Your task to perform on an android device: turn off picture-in-picture Image 0: 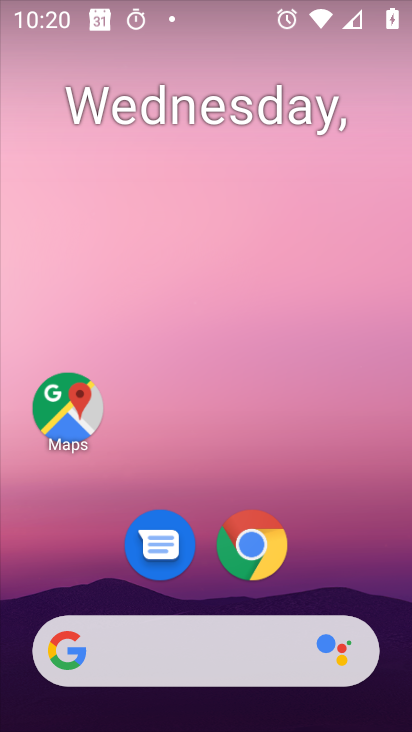
Step 0: press home button
Your task to perform on an android device: turn off picture-in-picture Image 1: 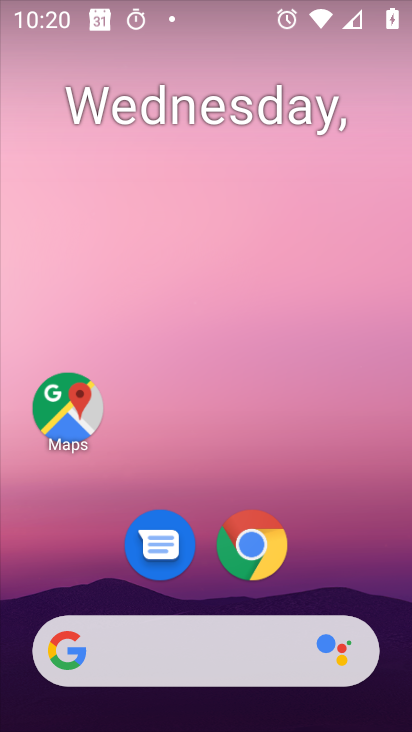
Step 1: drag from (238, 542) to (248, 484)
Your task to perform on an android device: turn off picture-in-picture Image 2: 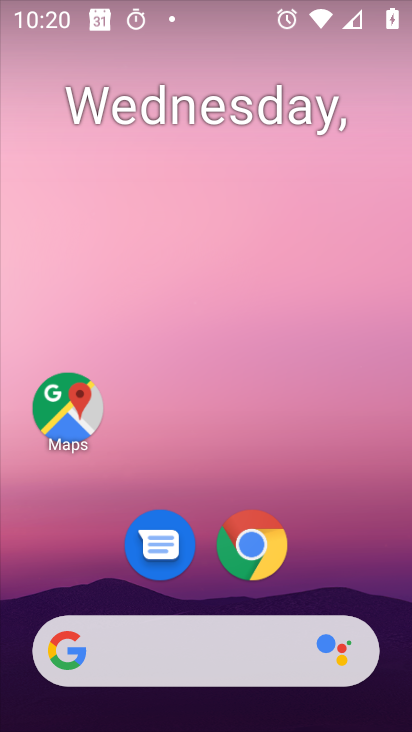
Step 2: click (283, 282)
Your task to perform on an android device: turn off picture-in-picture Image 3: 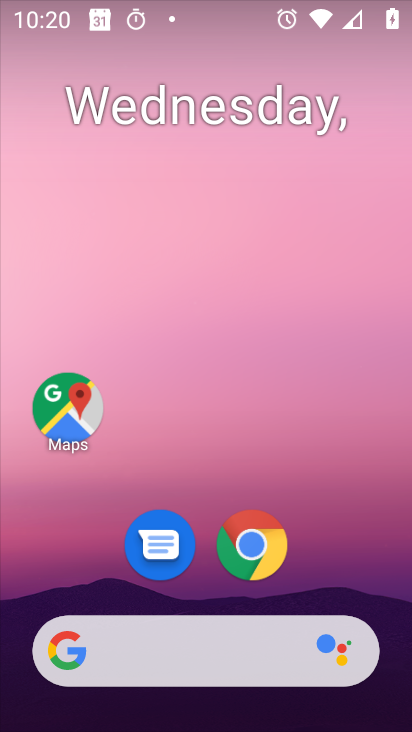
Step 3: drag from (258, 546) to (266, 495)
Your task to perform on an android device: turn off picture-in-picture Image 4: 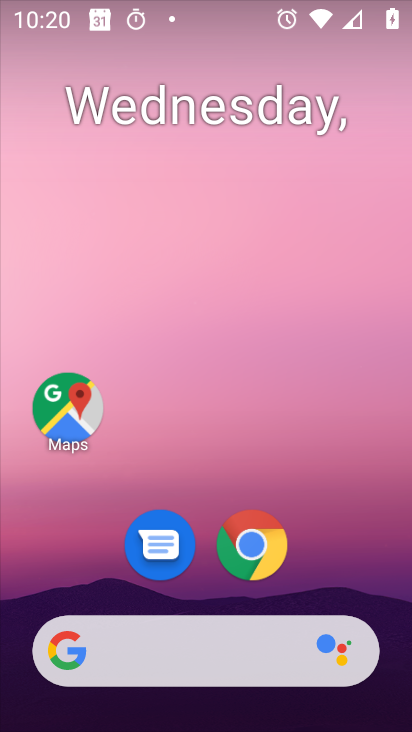
Step 4: click (271, 271)
Your task to perform on an android device: turn off picture-in-picture Image 5: 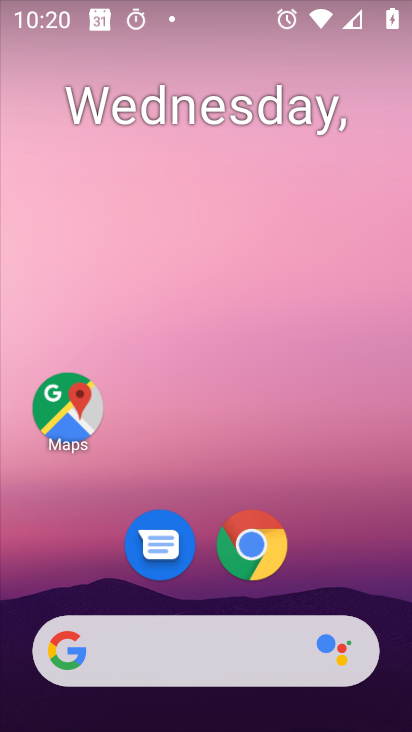
Step 5: drag from (237, 537) to (250, 486)
Your task to perform on an android device: turn off picture-in-picture Image 6: 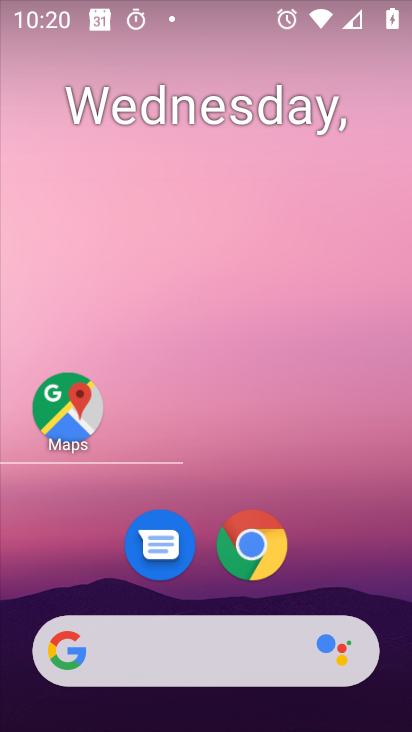
Step 6: click (268, 276)
Your task to perform on an android device: turn off picture-in-picture Image 7: 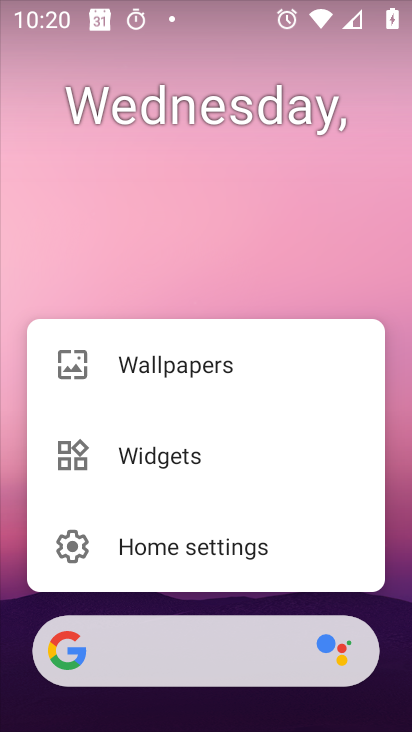
Step 7: click (309, 201)
Your task to perform on an android device: turn off picture-in-picture Image 8: 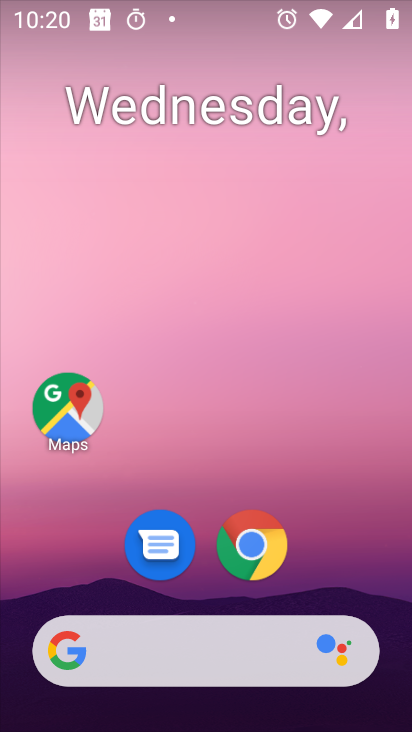
Step 8: click (258, 525)
Your task to perform on an android device: turn off picture-in-picture Image 9: 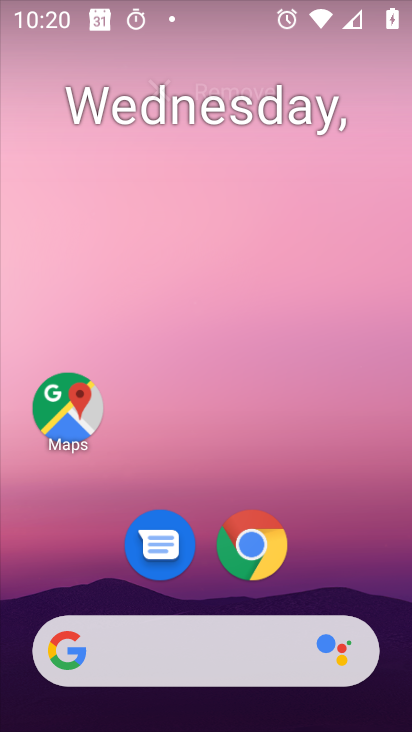
Step 9: click (283, 272)
Your task to perform on an android device: turn off picture-in-picture Image 10: 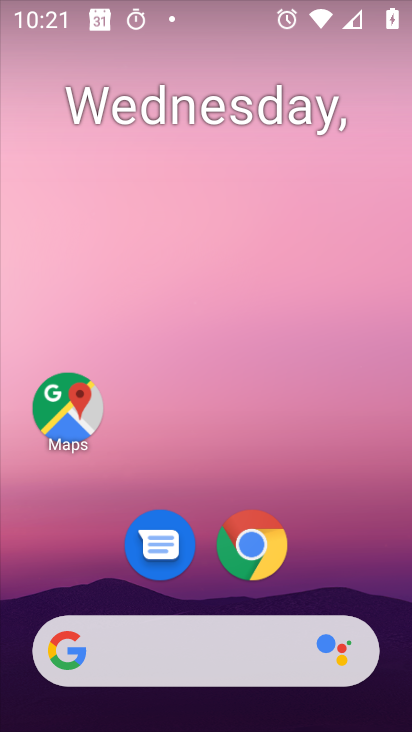
Step 10: click (241, 522)
Your task to perform on an android device: turn off picture-in-picture Image 11: 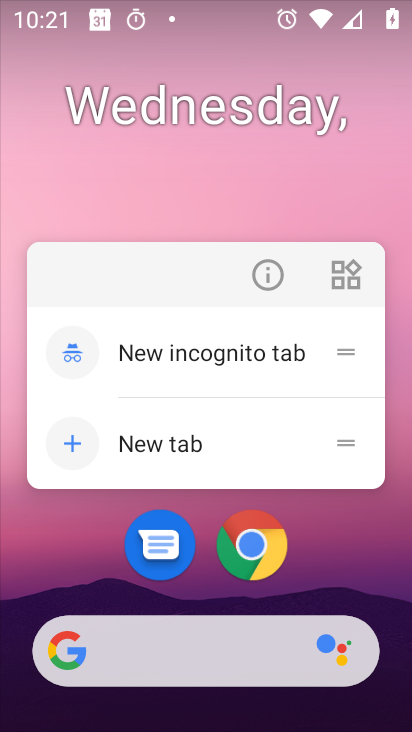
Step 11: click (271, 283)
Your task to perform on an android device: turn off picture-in-picture Image 12: 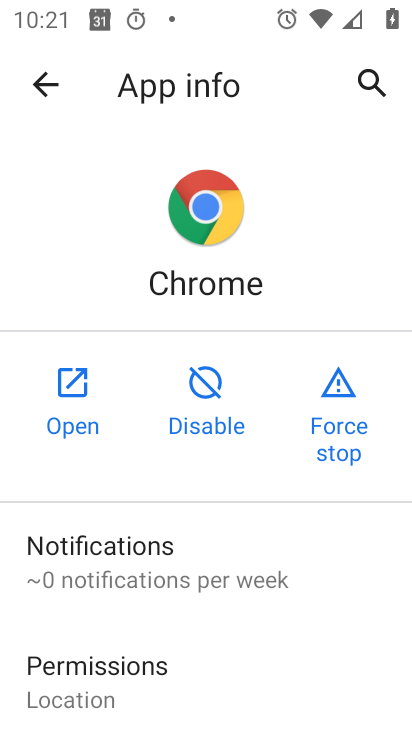
Step 12: drag from (191, 647) to (301, 69)
Your task to perform on an android device: turn off picture-in-picture Image 13: 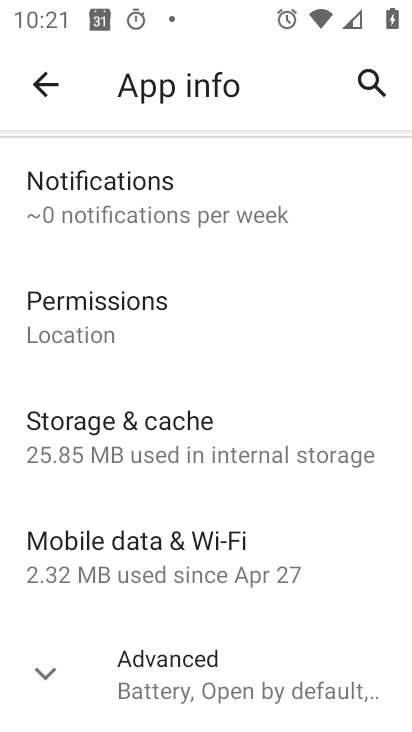
Step 13: click (152, 677)
Your task to perform on an android device: turn off picture-in-picture Image 14: 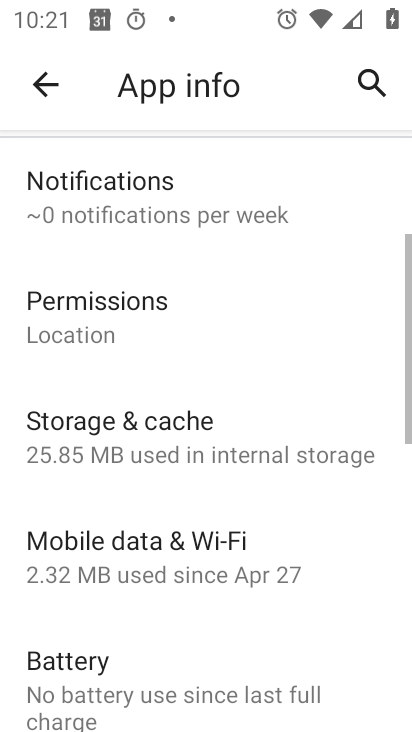
Step 14: drag from (168, 664) to (340, 53)
Your task to perform on an android device: turn off picture-in-picture Image 15: 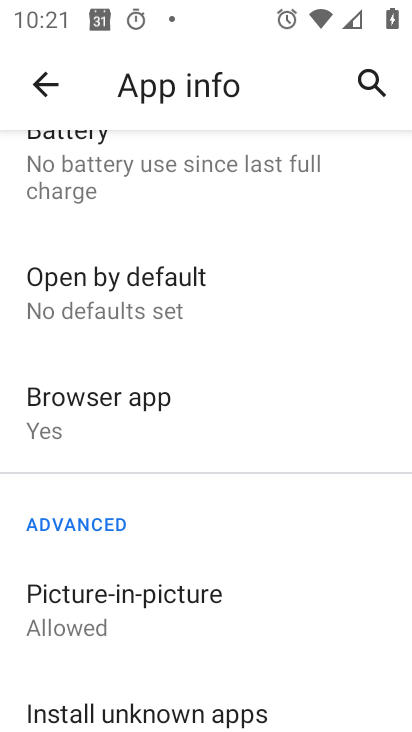
Step 15: click (110, 610)
Your task to perform on an android device: turn off picture-in-picture Image 16: 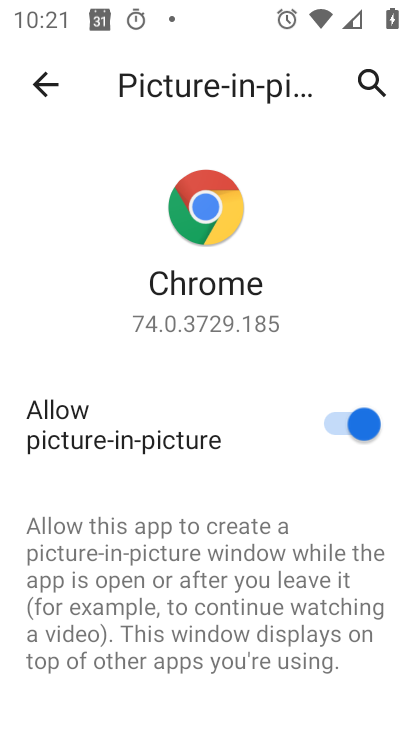
Step 16: click (338, 415)
Your task to perform on an android device: turn off picture-in-picture Image 17: 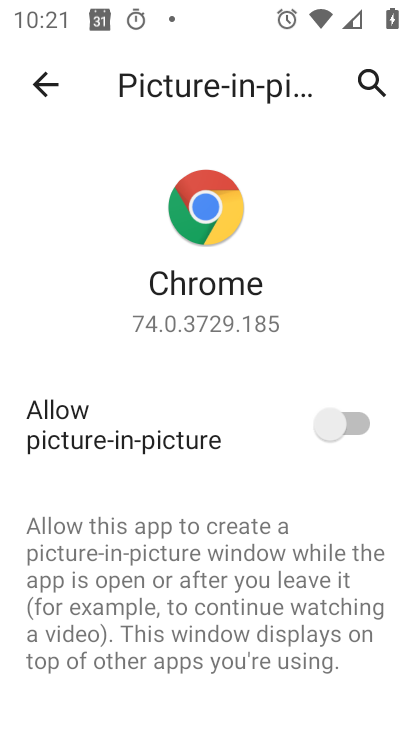
Step 17: task complete